Your task to perform on an android device: Open battery settings Image 0: 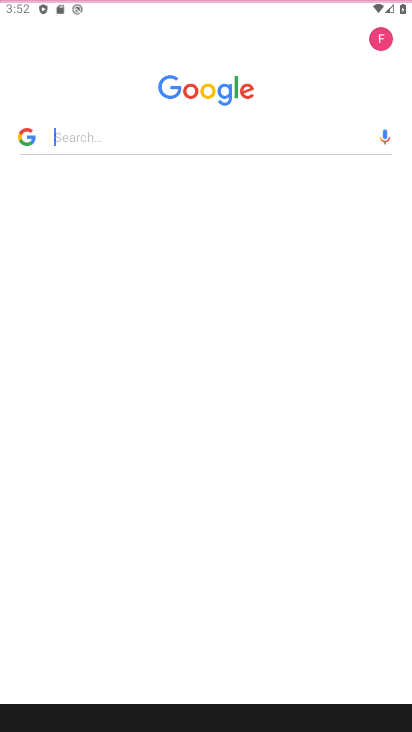
Step 0: click (124, 641)
Your task to perform on an android device: Open battery settings Image 1: 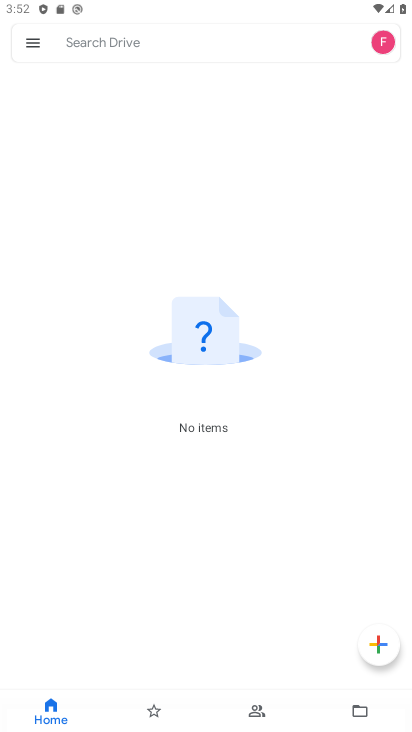
Step 1: press home button
Your task to perform on an android device: Open battery settings Image 2: 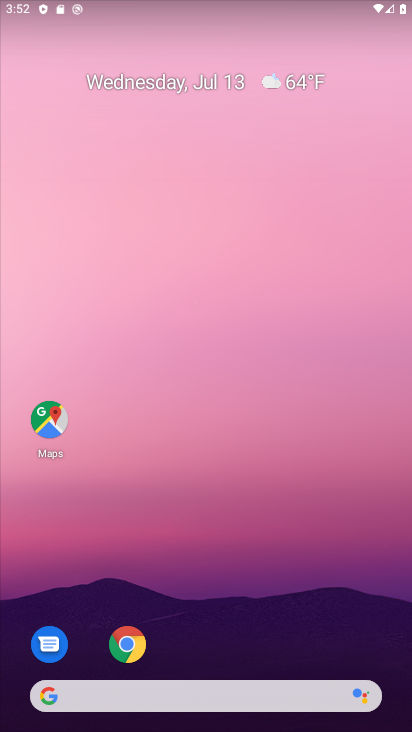
Step 2: drag from (267, 573) to (205, 100)
Your task to perform on an android device: Open battery settings Image 3: 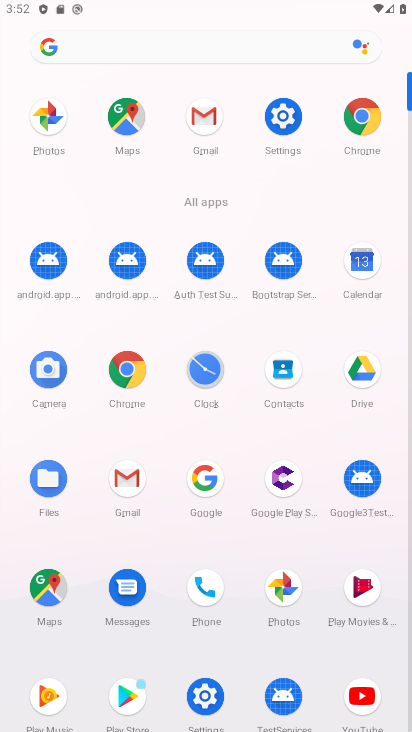
Step 3: click (279, 125)
Your task to perform on an android device: Open battery settings Image 4: 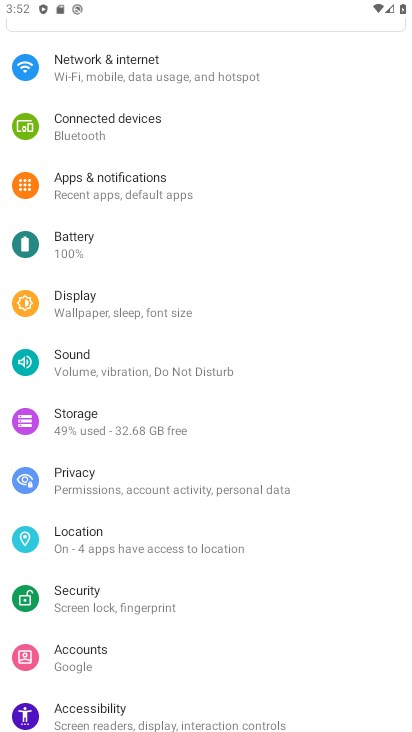
Step 4: click (73, 243)
Your task to perform on an android device: Open battery settings Image 5: 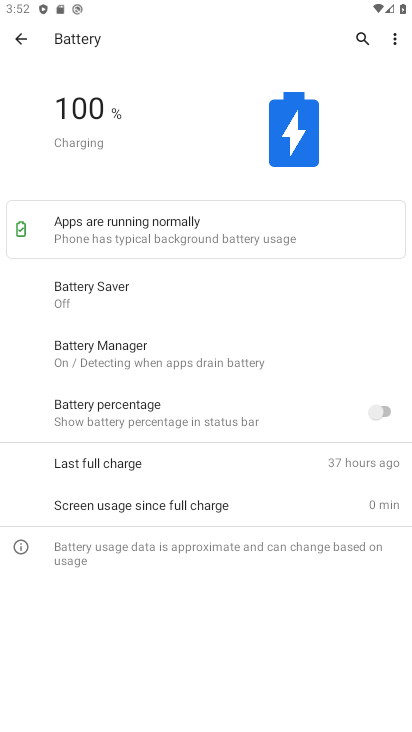
Step 5: task complete